Your task to perform on an android device: Set the phone to "Do not disturb". Image 0: 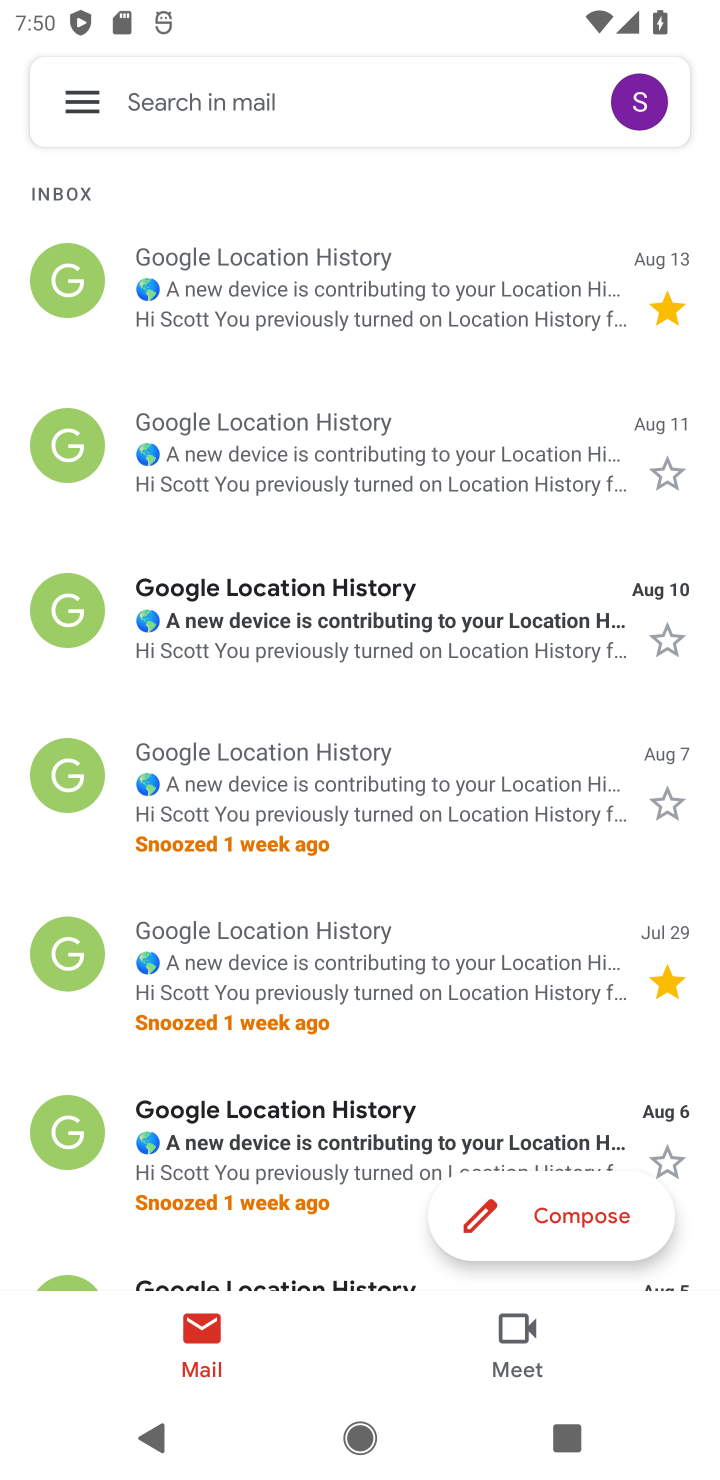
Step 0: press home button
Your task to perform on an android device: Set the phone to "Do not disturb". Image 1: 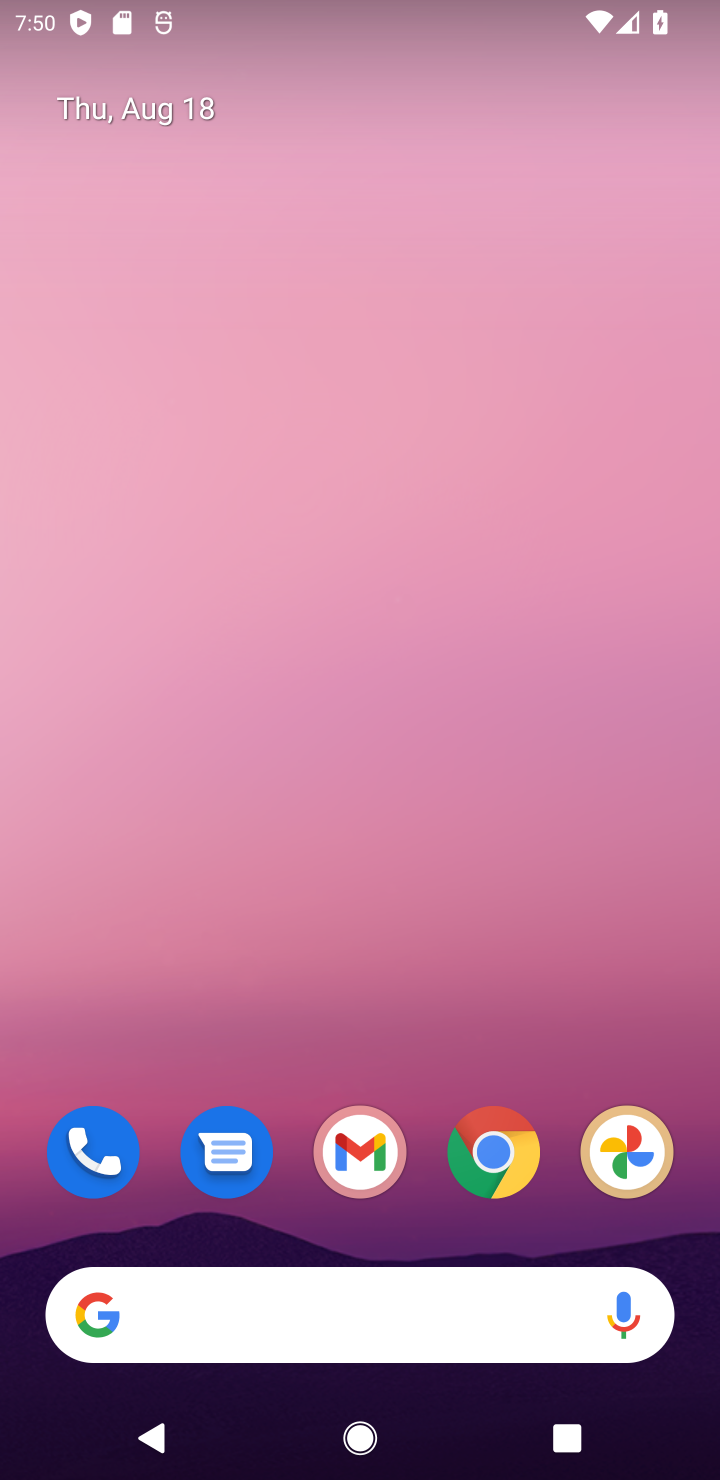
Step 1: press home button
Your task to perform on an android device: Set the phone to "Do not disturb". Image 2: 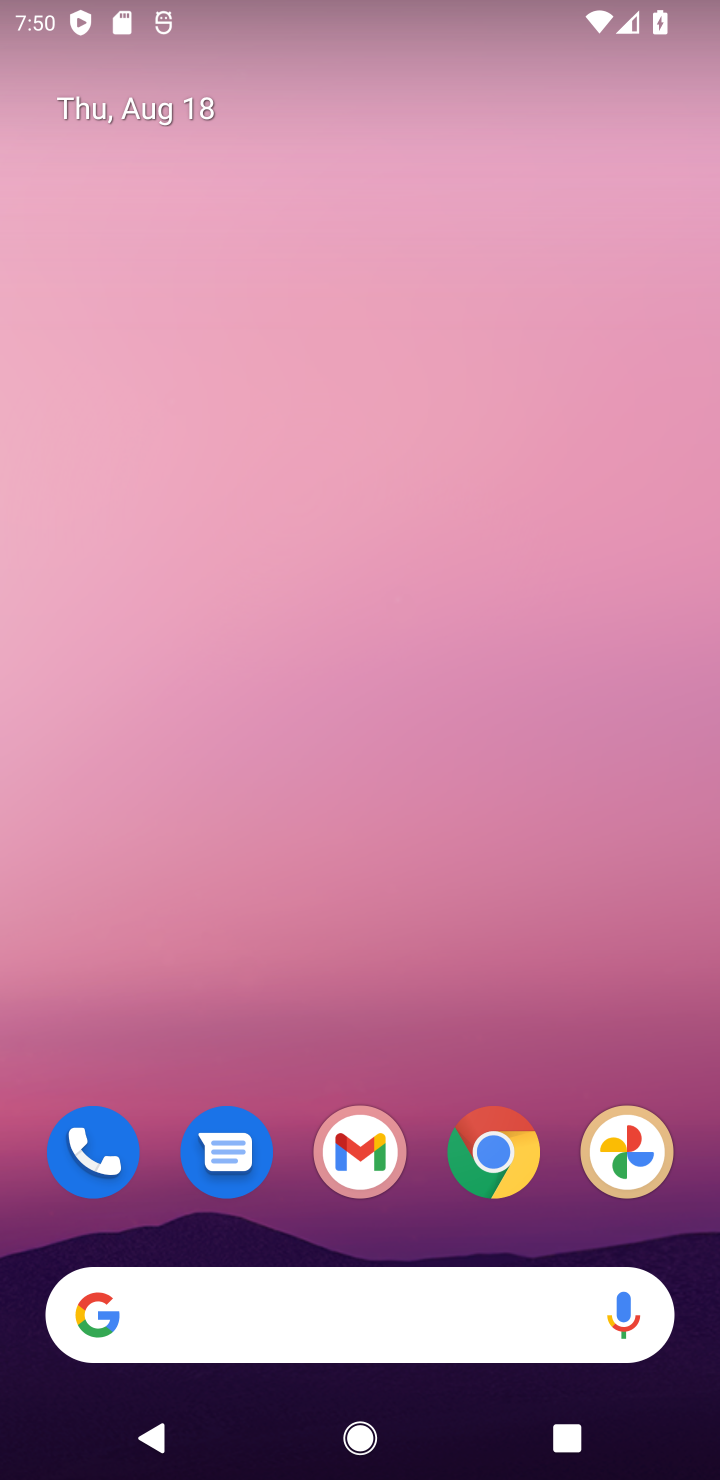
Step 2: drag from (422, 11) to (355, 779)
Your task to perform on an android device: Set the phone to "Do not disturb". Image 3: 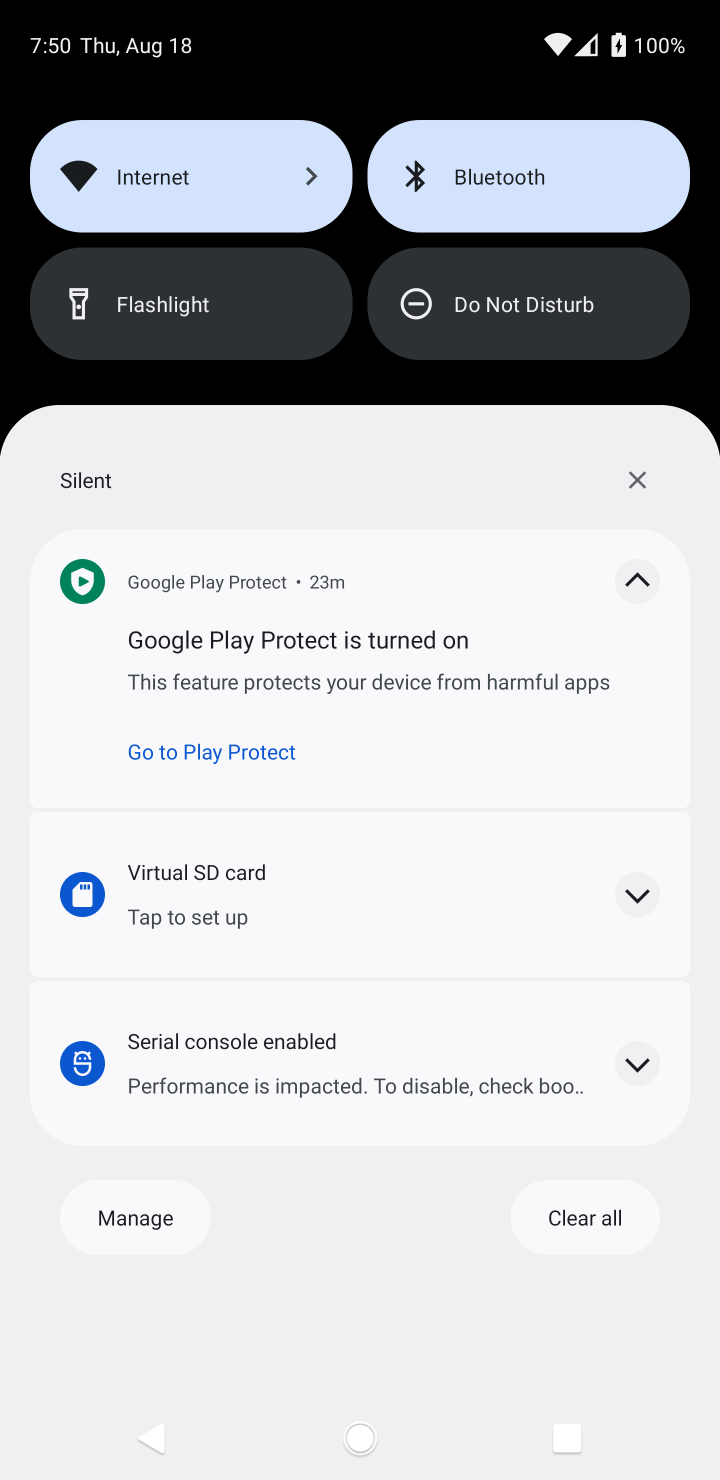
Step 3: click (481, 321)
Your task to perform on an android device: Set the phone to "Do not disturb". Image 4: 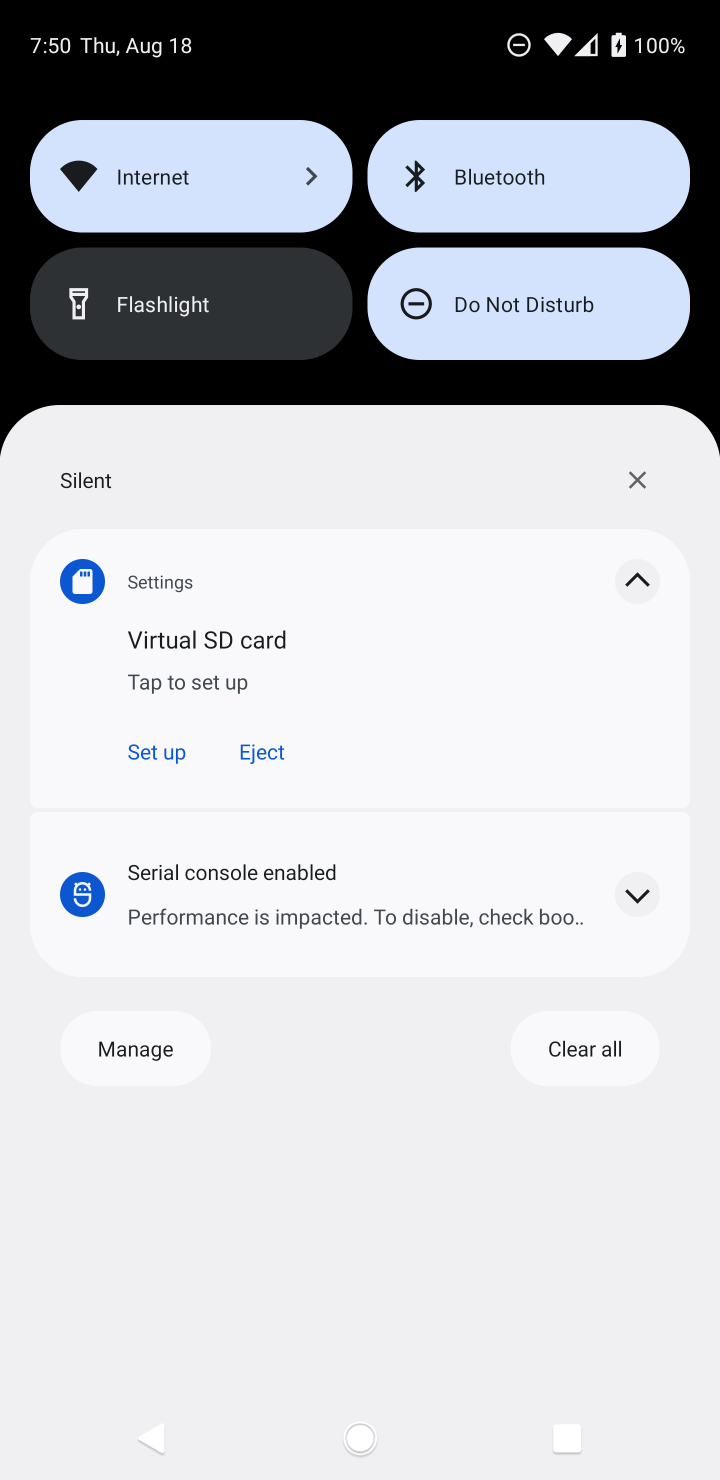
Step 4: task complete